Your task to perform on an android device: show emergency info Image 0: 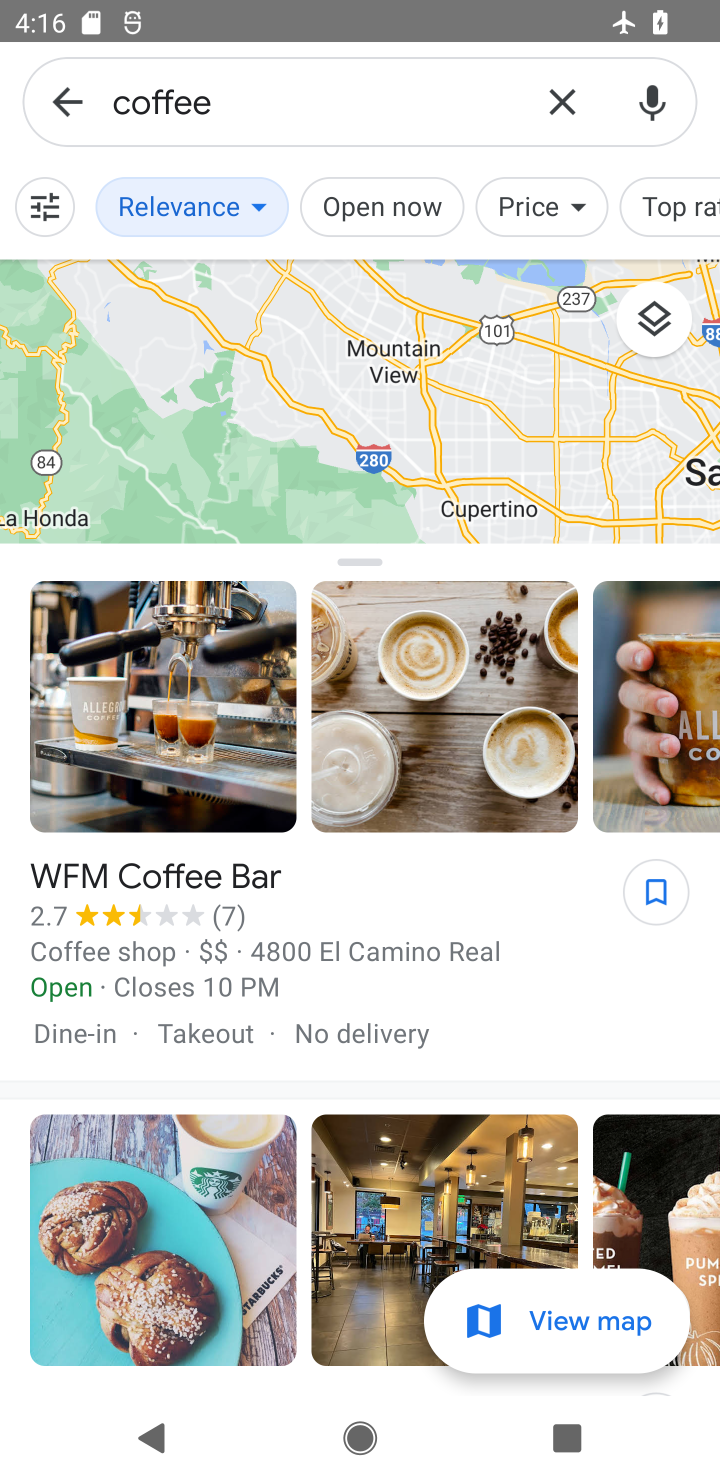
Step 0: press back button
Your task to perform on an android device: show emergency info Image 1: 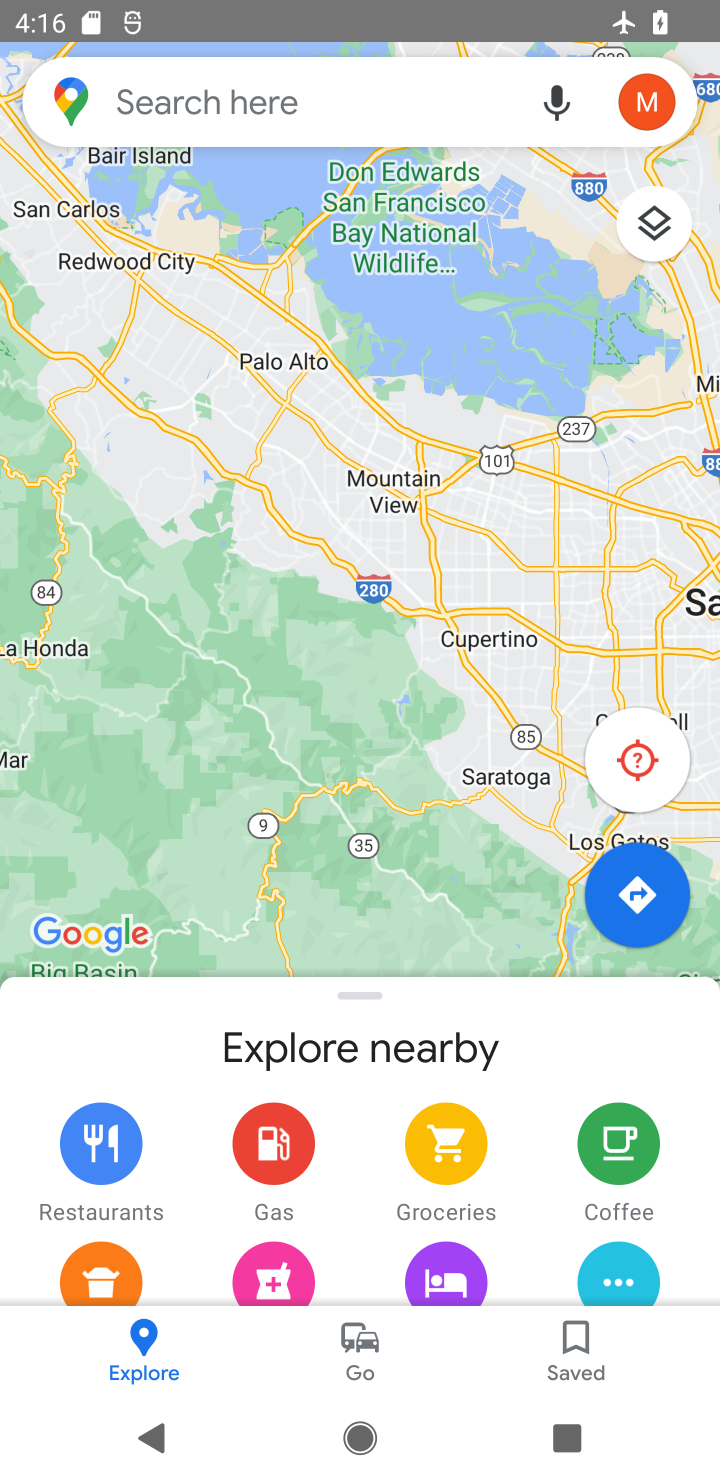
Step 1: press back button
Your task to perform on an android device: show emergency info Image 2: 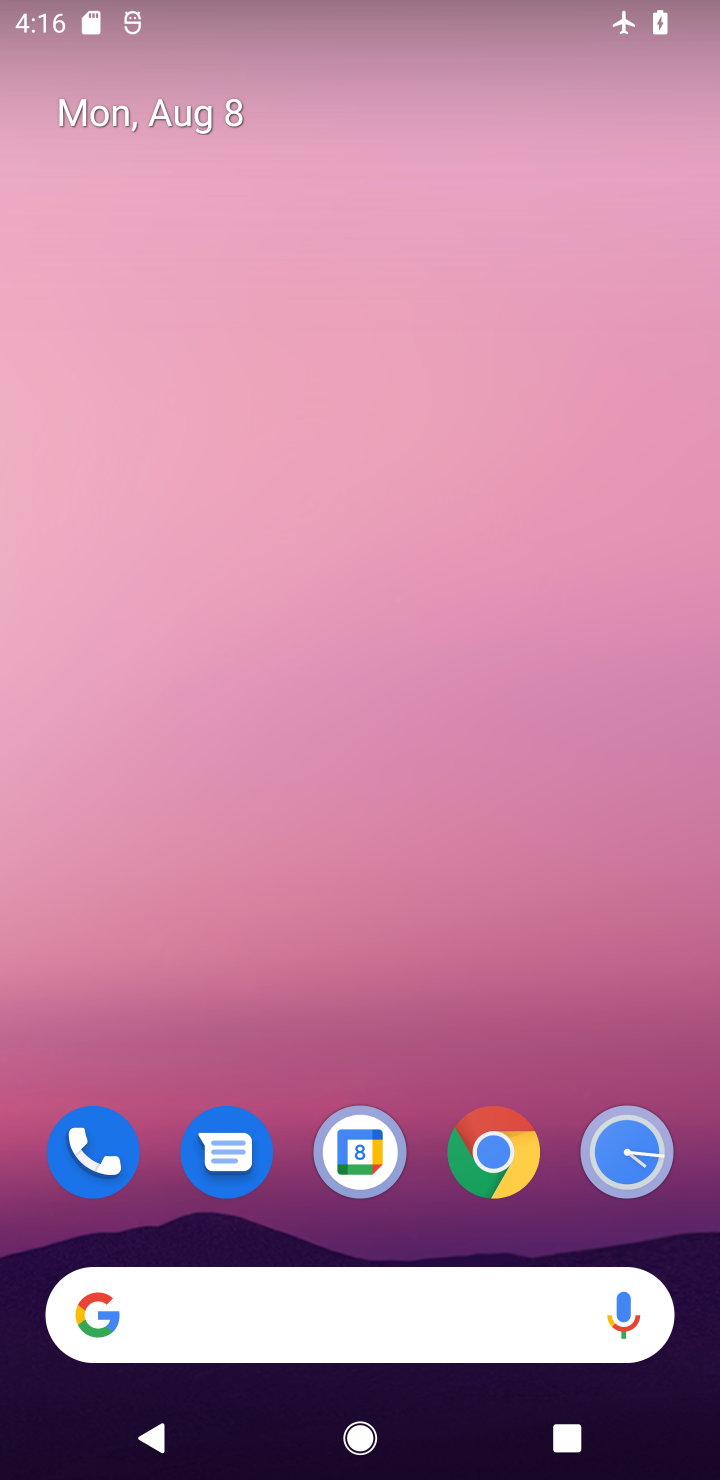
Step 2: drag from (280, 1264) to (452, 0)
Your task to perform on an android device: show emergency info Image 3: 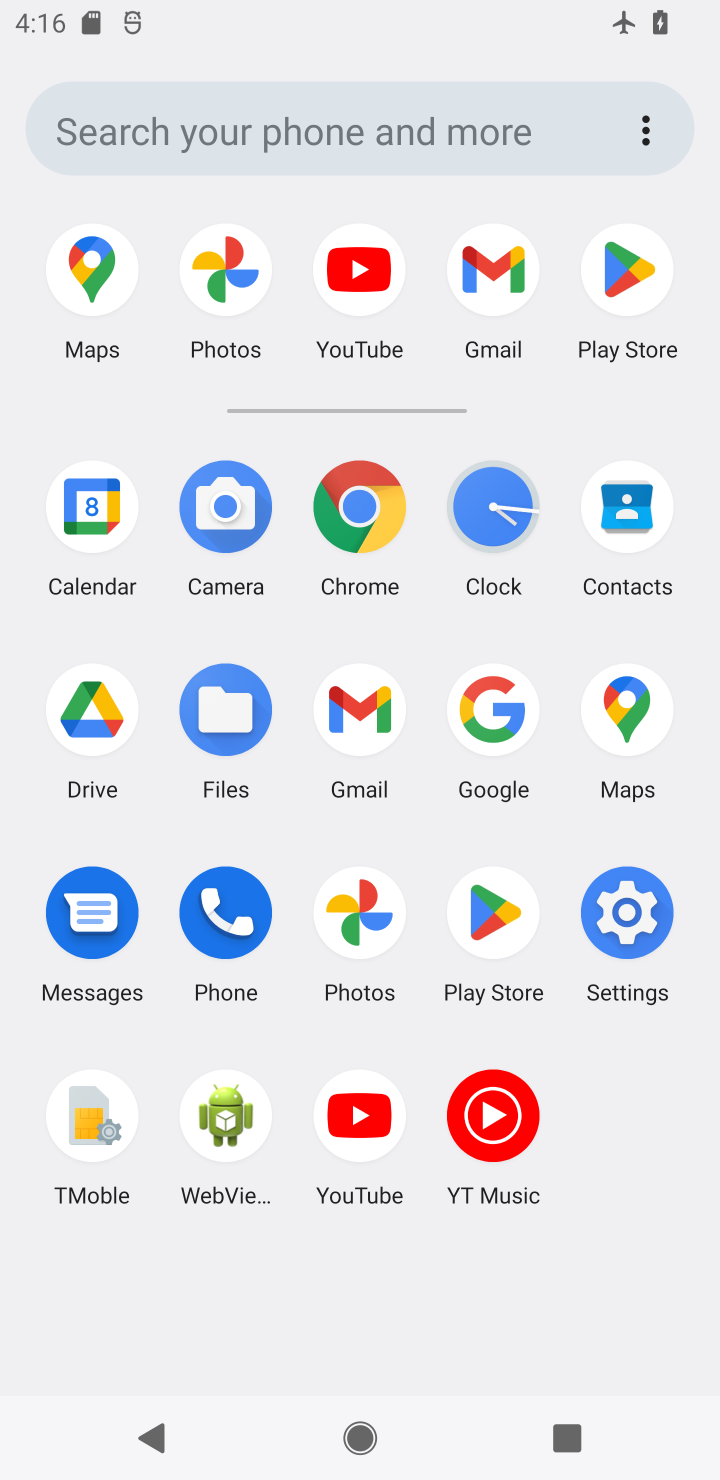
Step 3: click (643, 921)
Your task to perform on an android device: show emergency info Image 4: 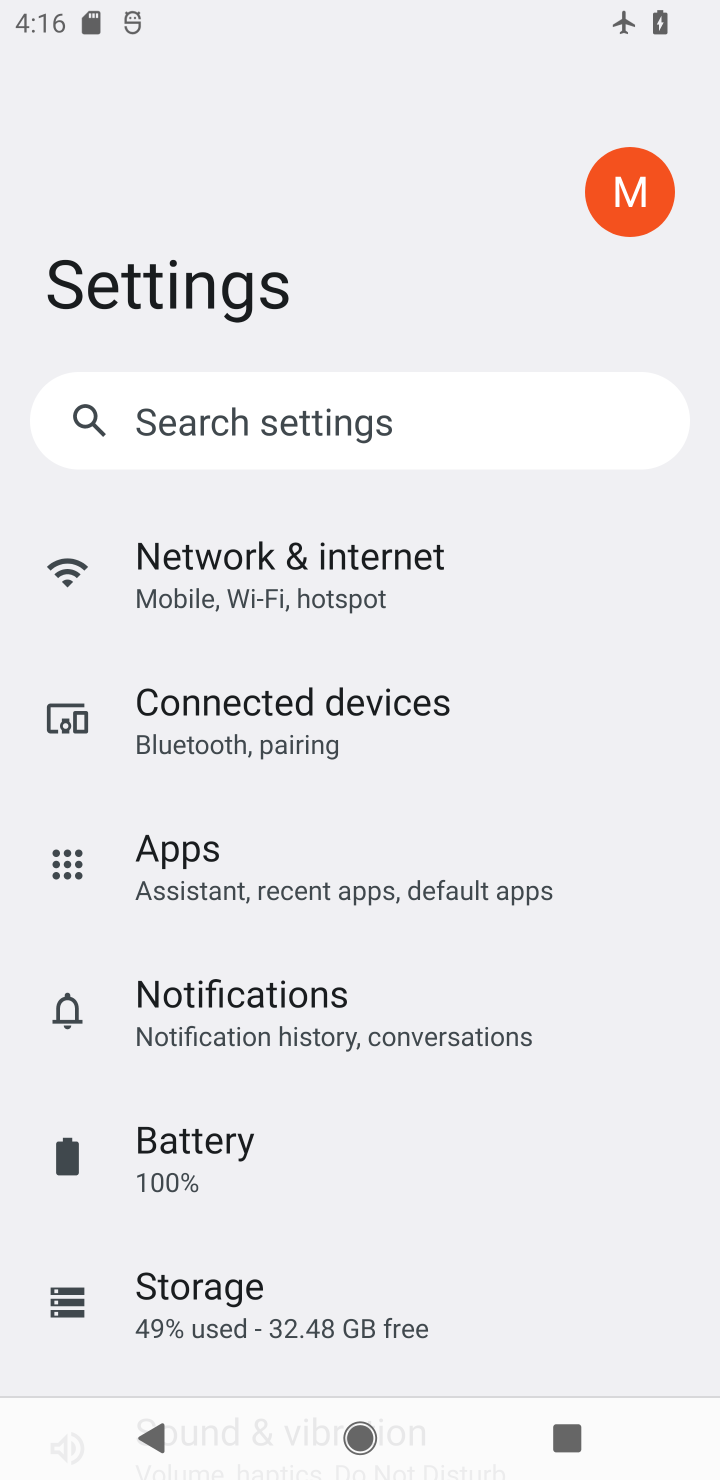
Step 4: drag from (320, 1280) to (439, 3)
Your task to perform on an android device: show emergency info Image 5: 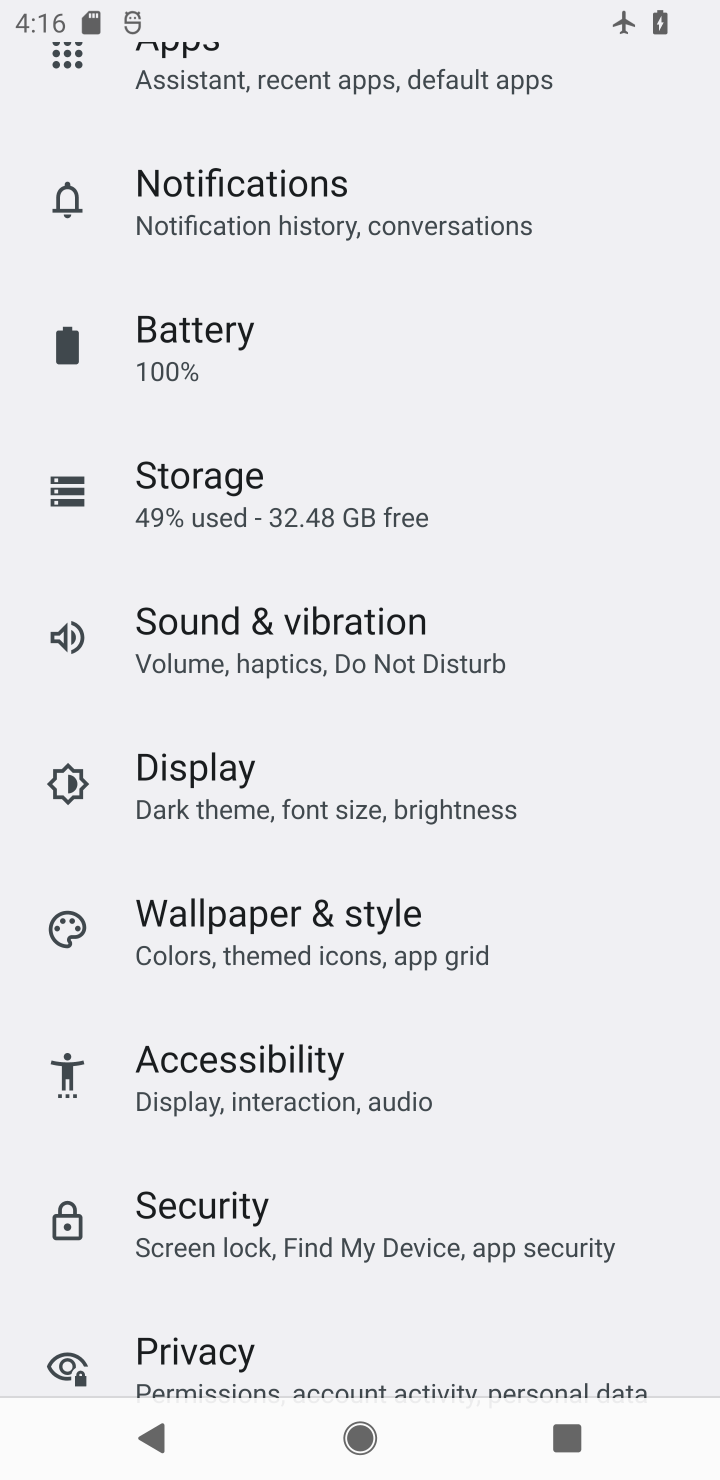
Step 5: drag from (248, 1268) to (343, 5)
Your task to perform on an android device: show emergency info Image 6: 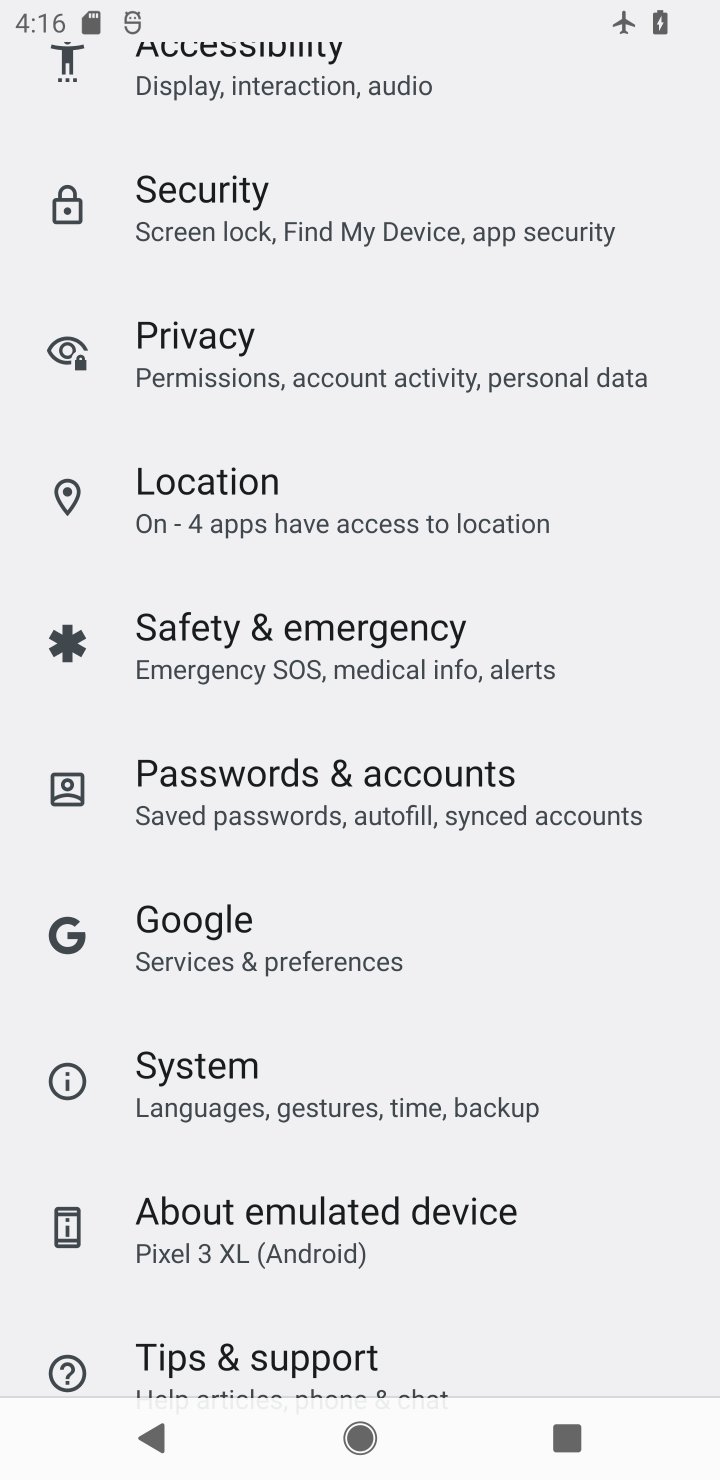
Step 6: drag from (395, 1368) to (597, 128)
Your task to perform on an android device: show emergency info Image 7: 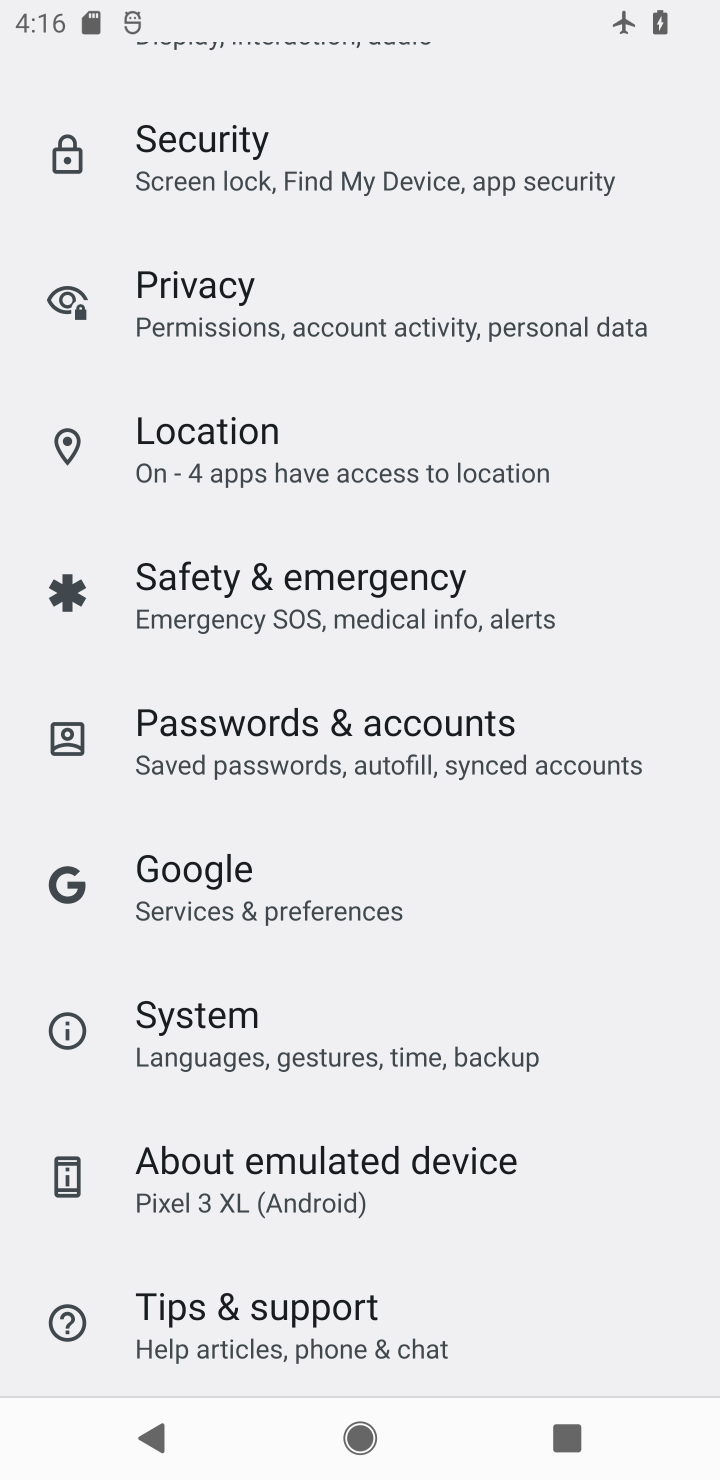
Step 7: drag from (289, 1268) to (517, 23)
Your task to perform on an android device: show emergency info Image 8: 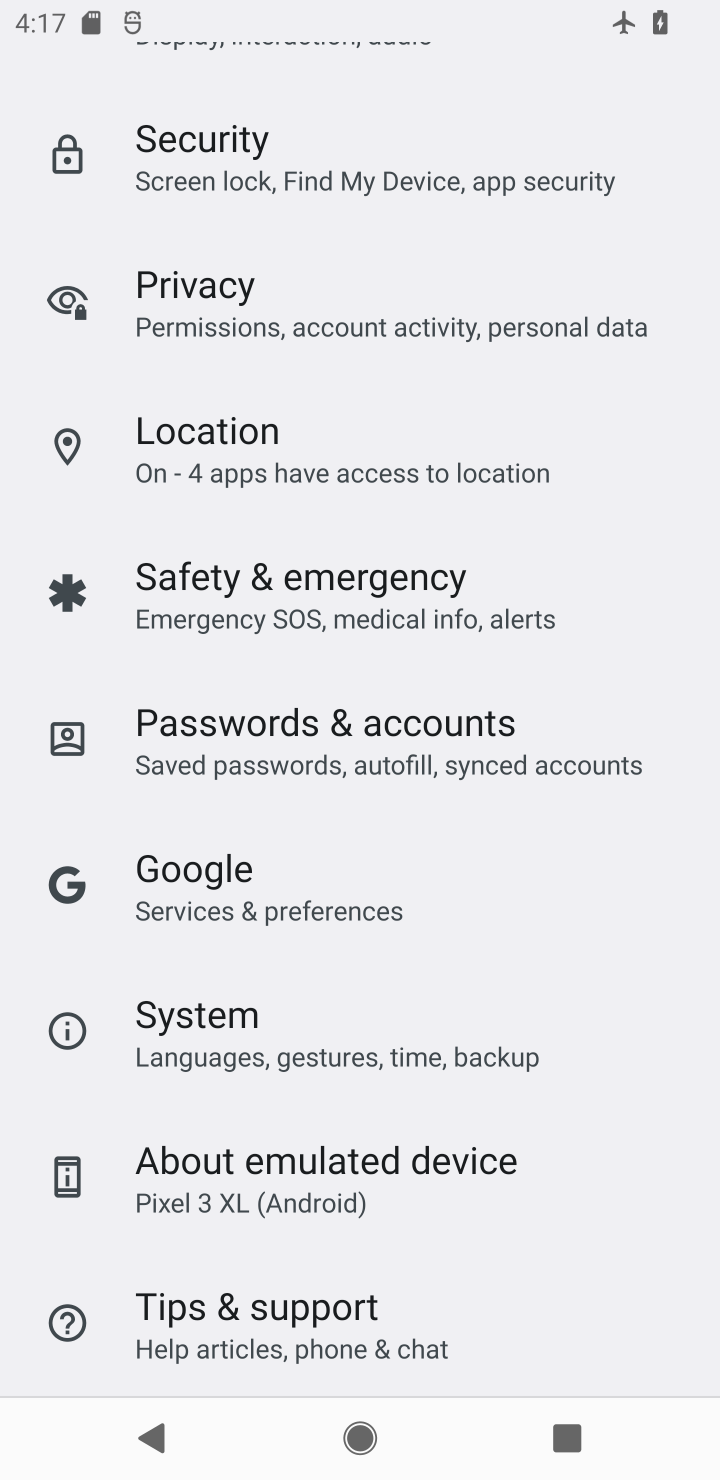
Step 8: click (357, 1188)
Your task to perform on an android device: show emergency info Image 9: 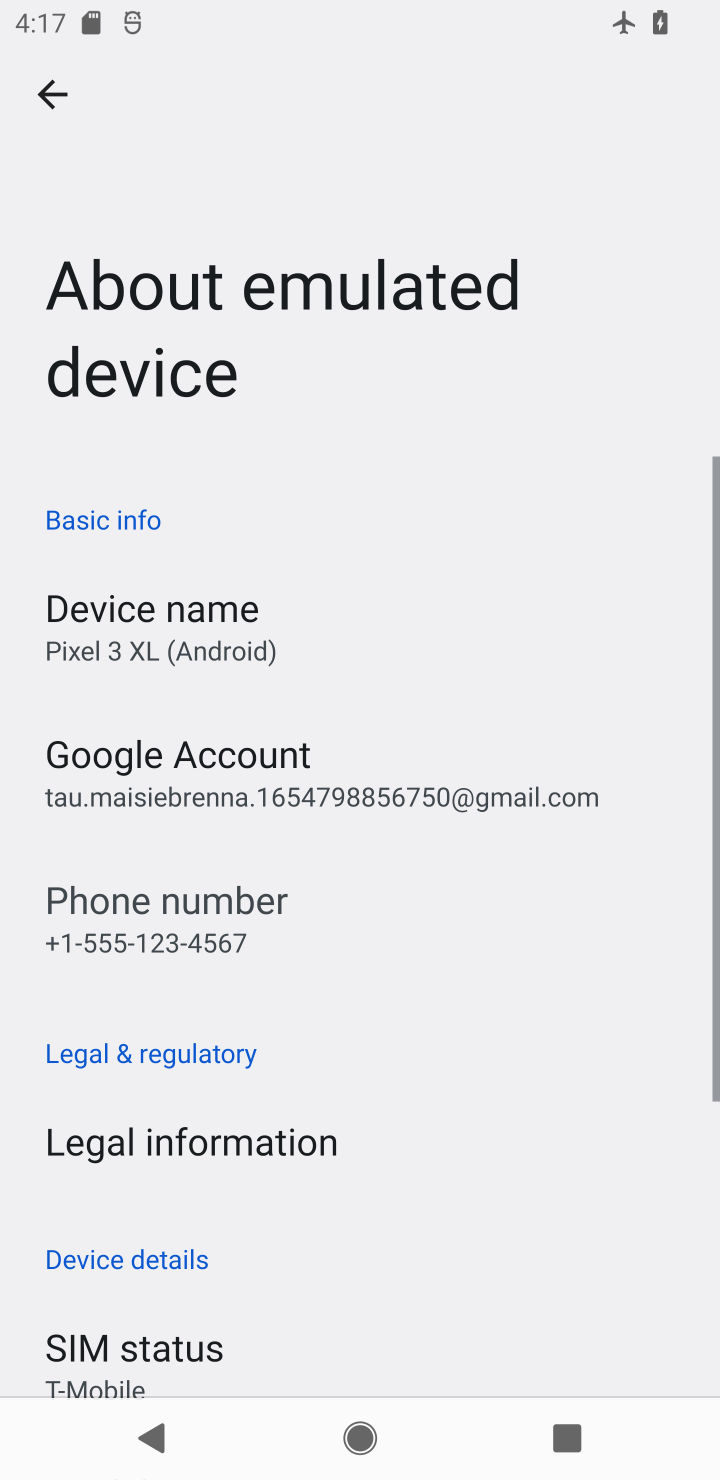
Step 9: drag from (363, 1285) to (502, 411)
Your task to perform on an android device: show emergency info Image 10: 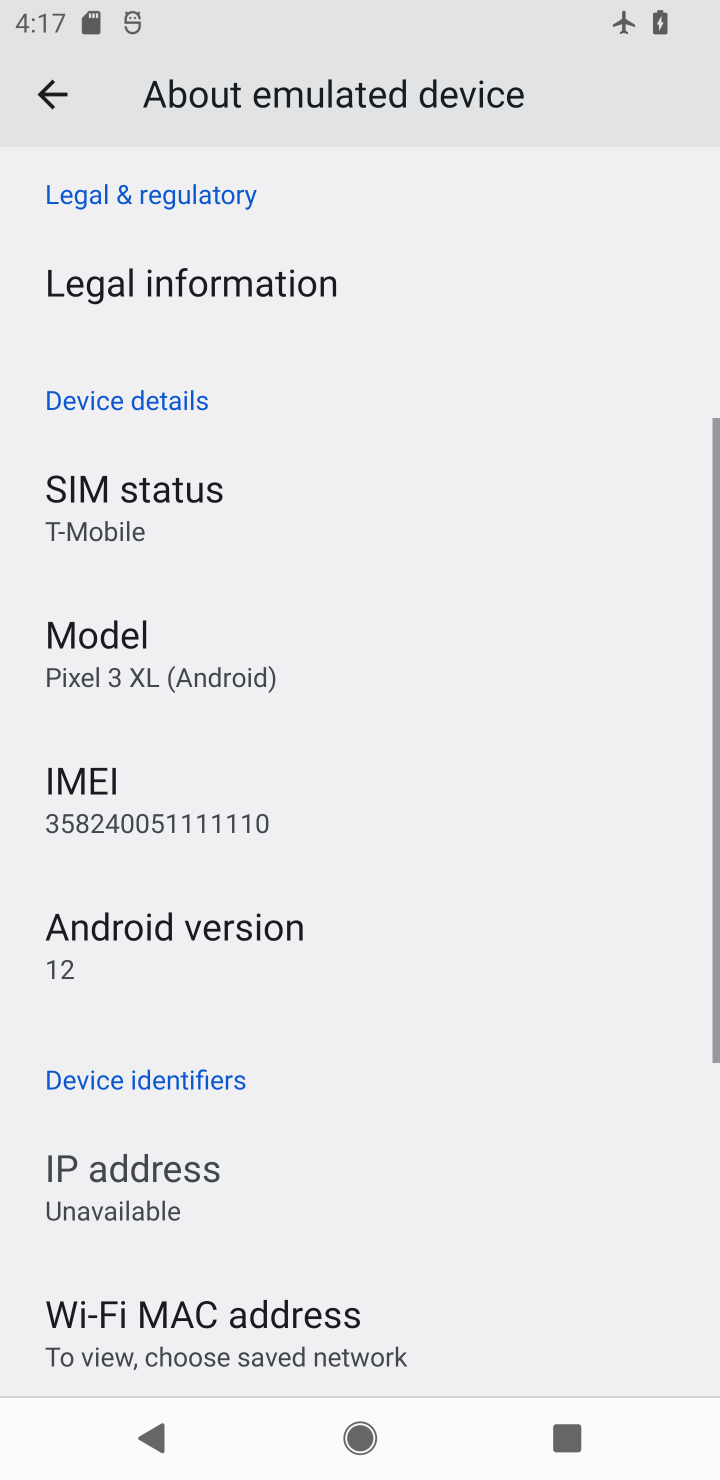
Step 10: drag from (472, 665) to (387, 1469)
Your task to perform on an android device: show emergency info Image 11: 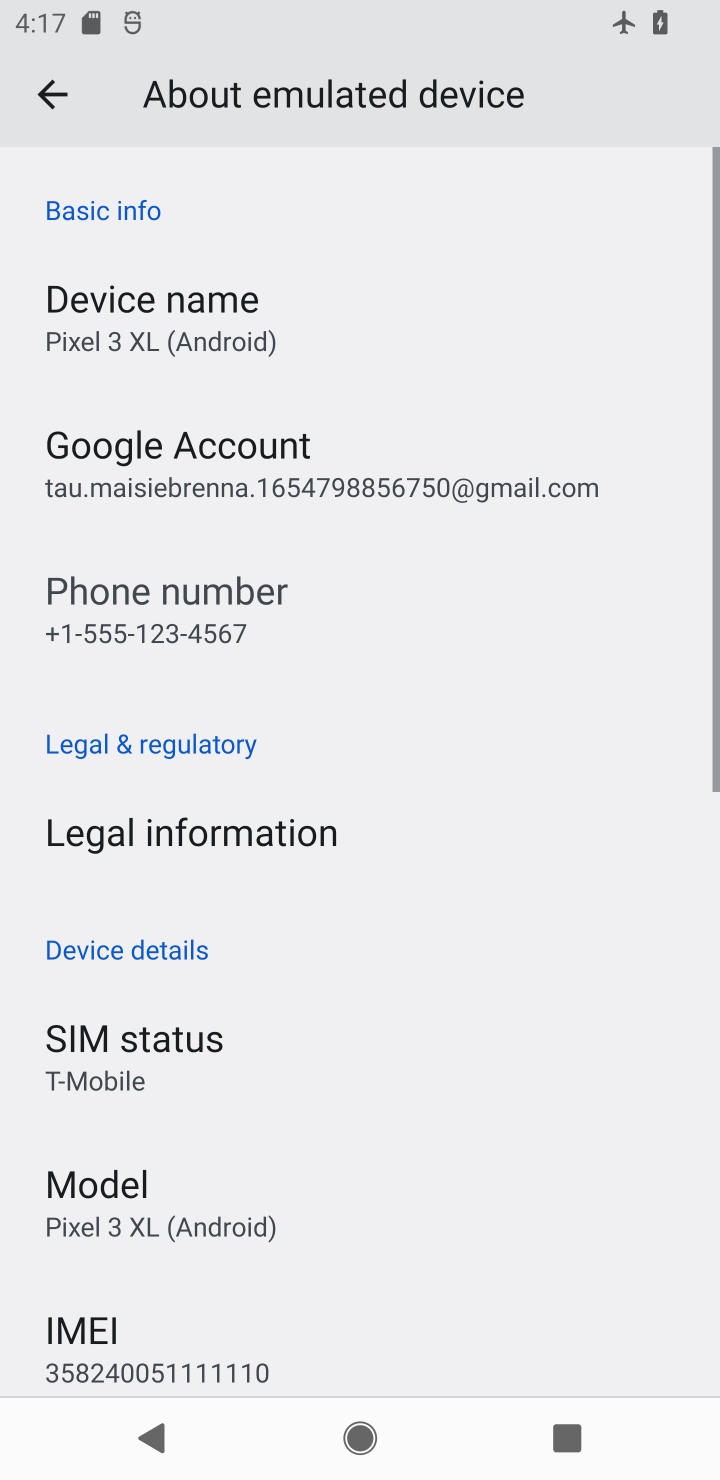
Step 11: click (73, 93)
Your task to perform on an android device: show emergency info Image 12: 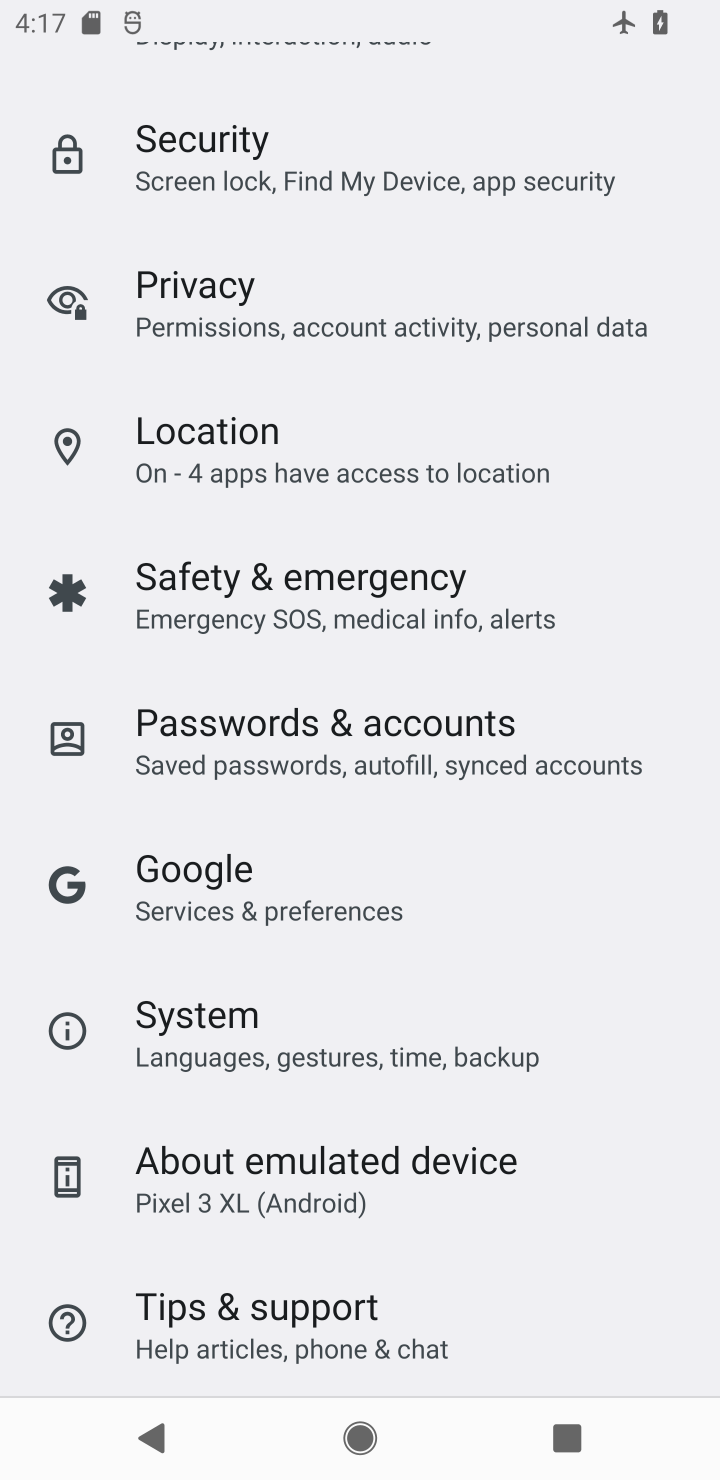
Step 12: click (239, 1033)
Your task to perform on an android device: show emergency info Image 13: 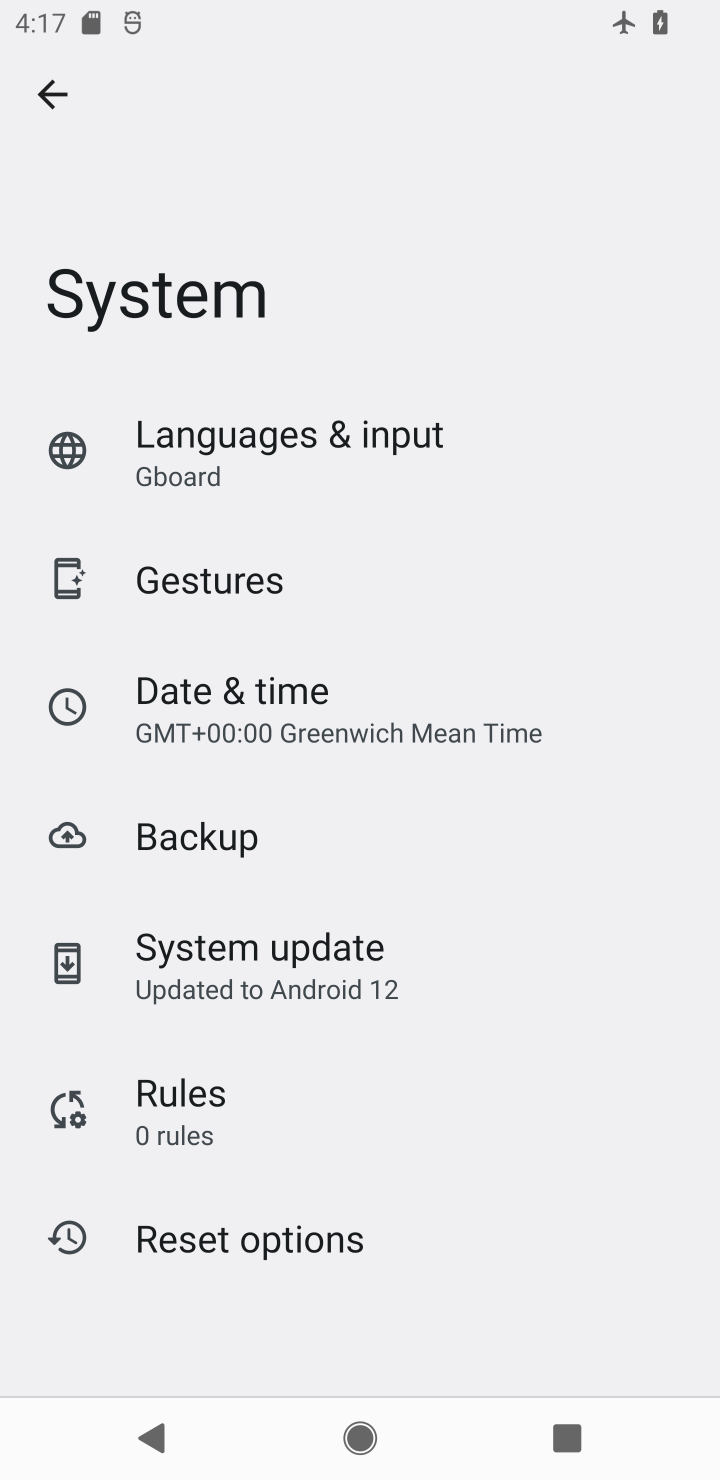
Step 13: click (50, 95)
Your task to perform on an android device: show emergency info Image 14: 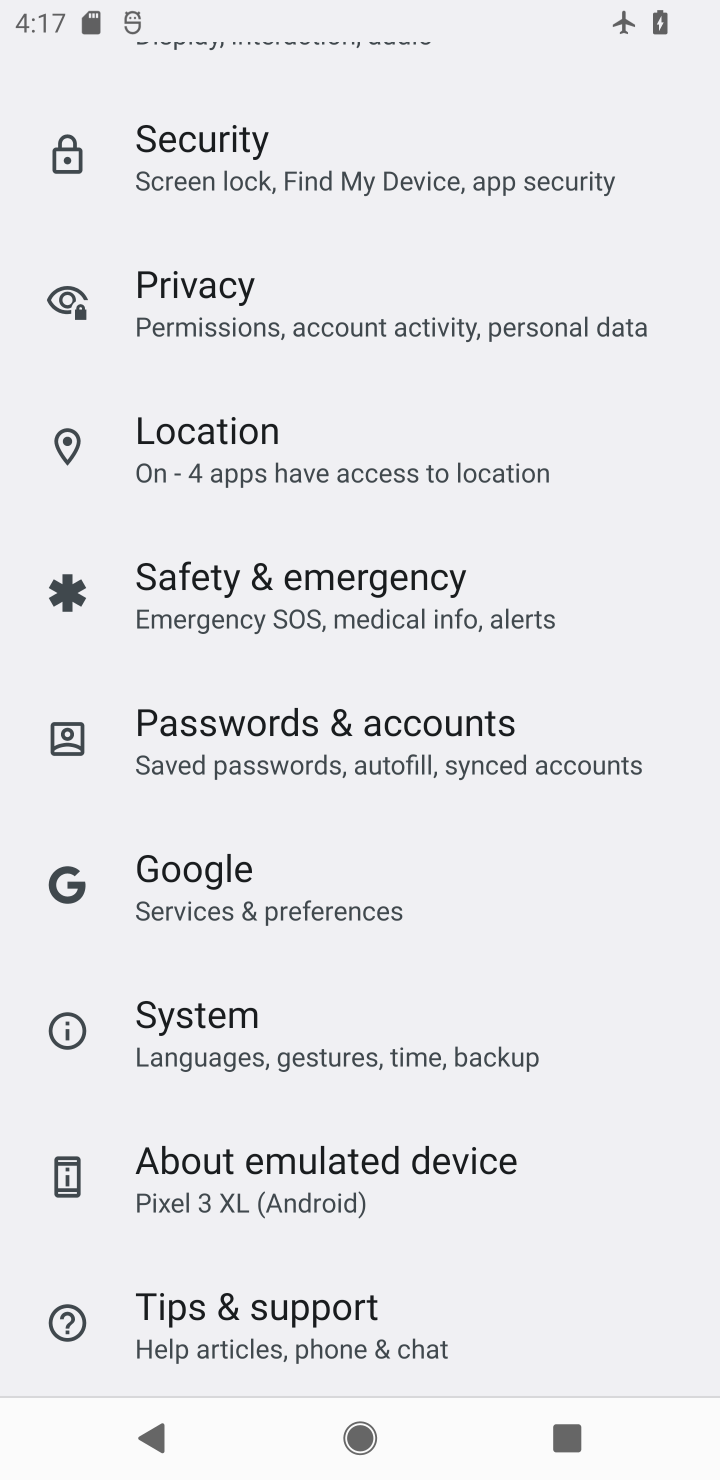
Step 14: click (356, 1175)
Your task to perform on an android device: show emergency info Image 15: 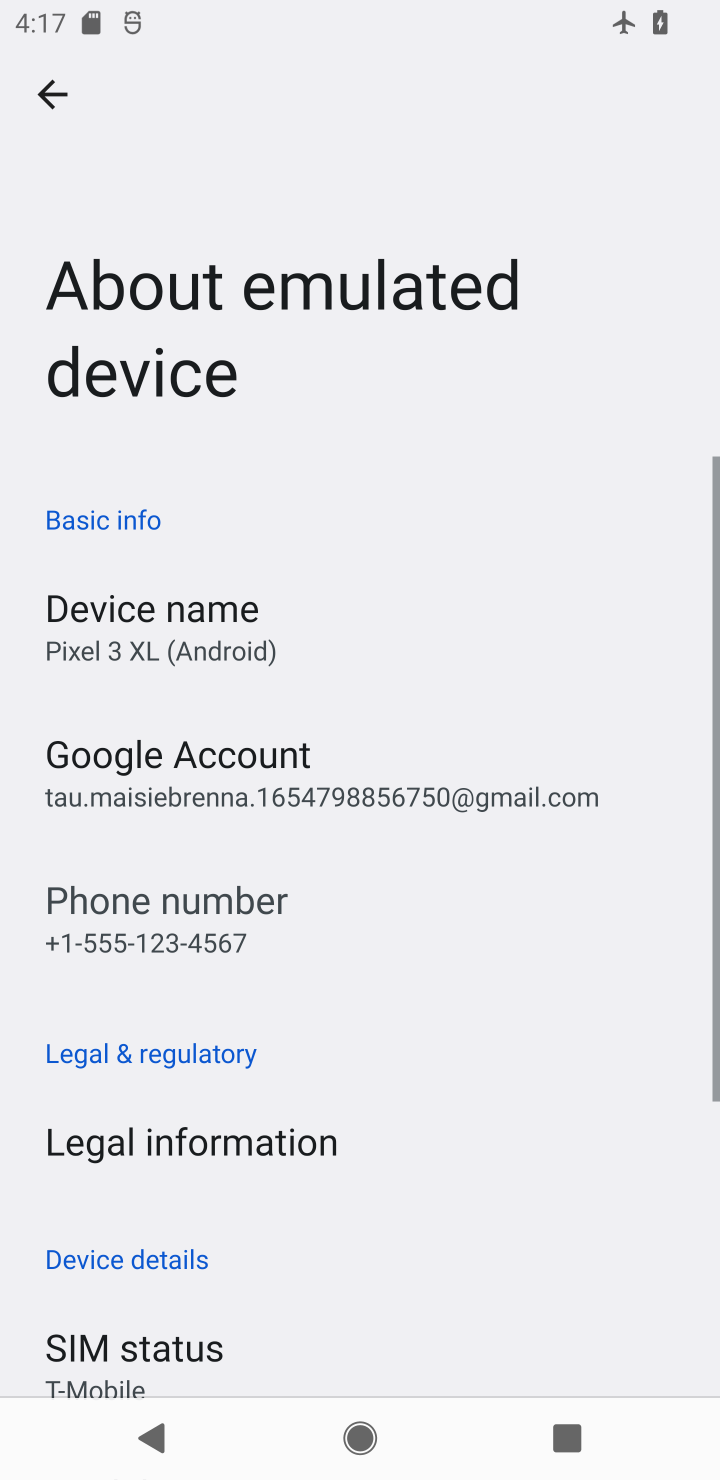
Step 15: task complete